Your task to perform on an android device: toggle javascript in the chrome app Image 0: 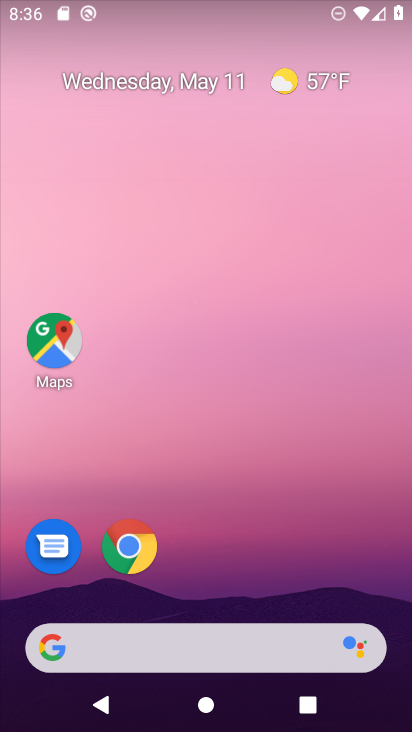
Step 0: click (142, 541)
Your task to perform on an android device: toggle javascript in the chrome app Image 1: 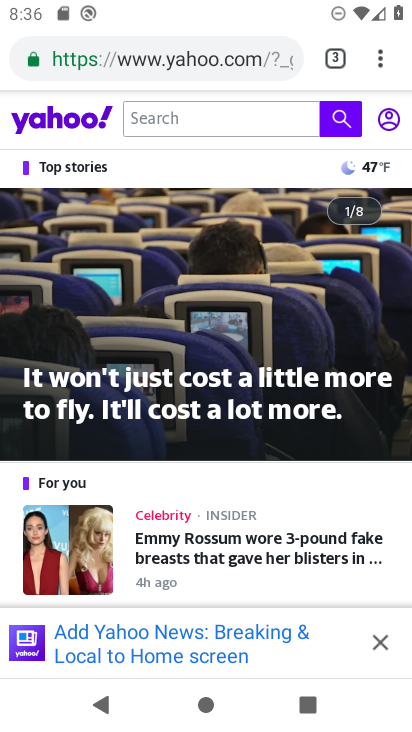
Step 1: click (382, 71)
Your task to perform on an android device: toggle javascript in the chrome app Image 2: 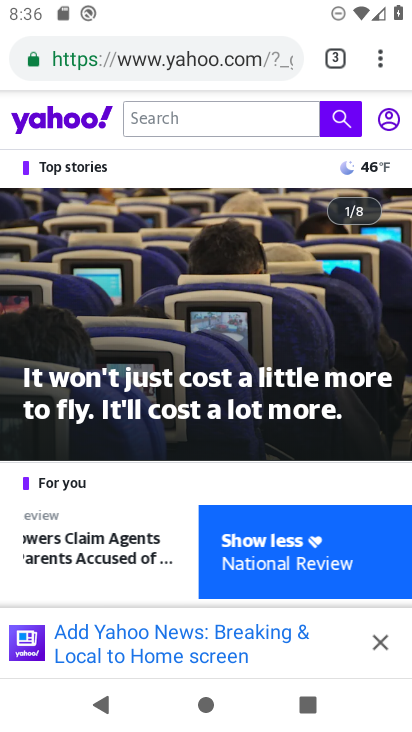
Step 2: drag from (377, 59) to (179, 576)
Your task to perform on an android device: toggle javascript in the chrome app Image 3: 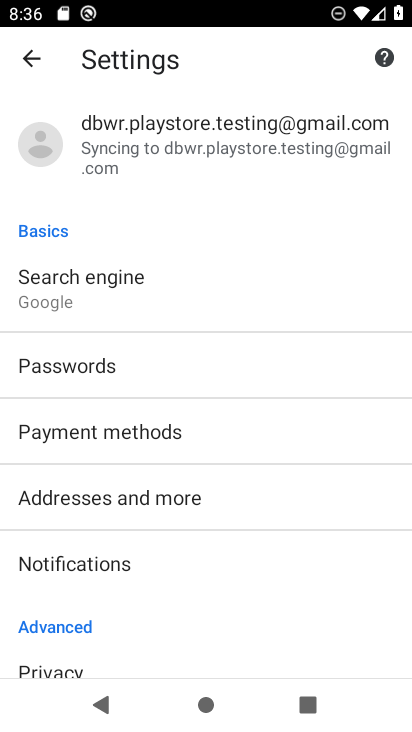
Step 3: drag from (162, 578) to (237, 329)
Your task to perform on an android device: toggle javascript in the chrome app Image 4: 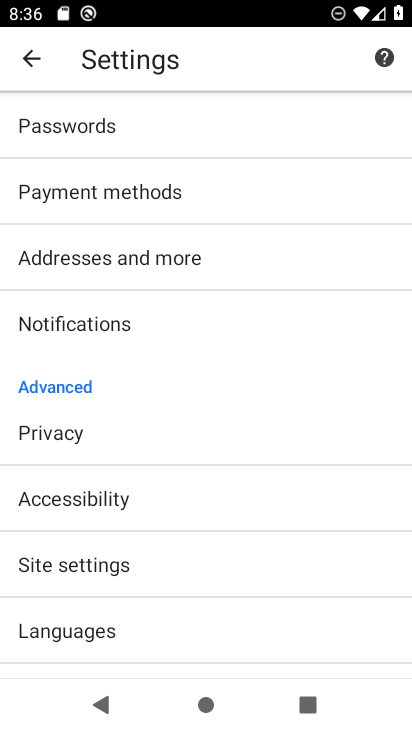
Step 4: click (122, 554)
Your task to perform on an android device: toggle javascript in the chrome app Image 5: 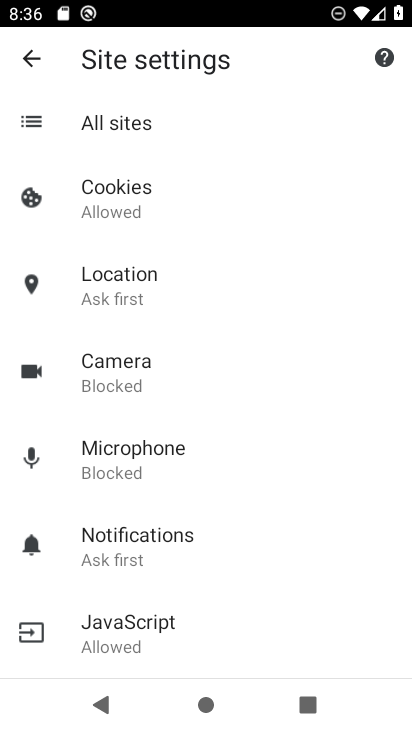
Step 5: click (162, 600)
Your task to perform on an android device: toggle javascript in the chrome app Image 6: 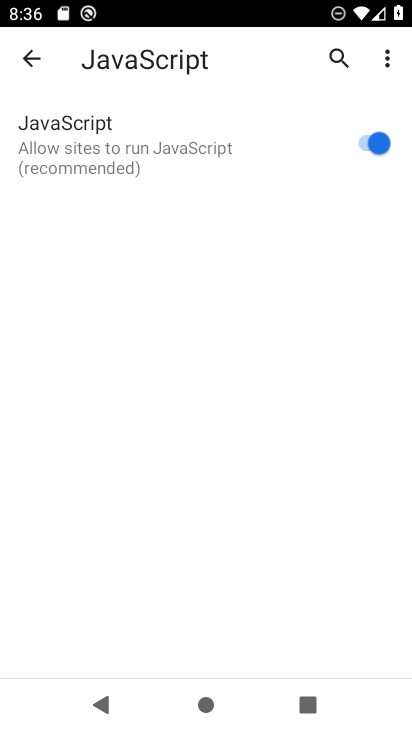
Step 6: click (365, 125)
Your task to perform on an android device: toggle javascript in the chrome app Image 7: 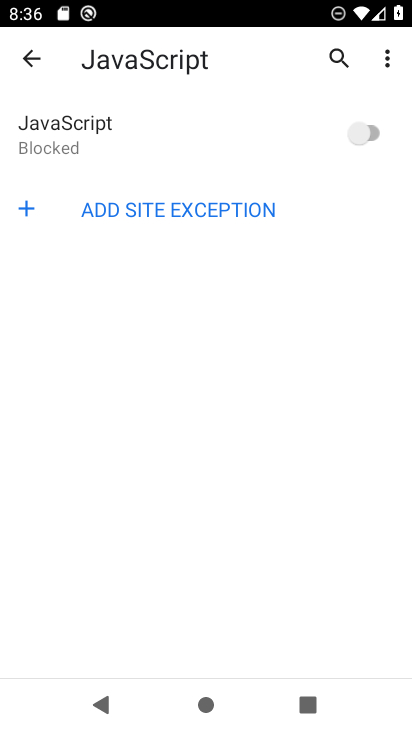
Step 7: task complete